Your task to perform on an android device: Open battery settings Image 0: 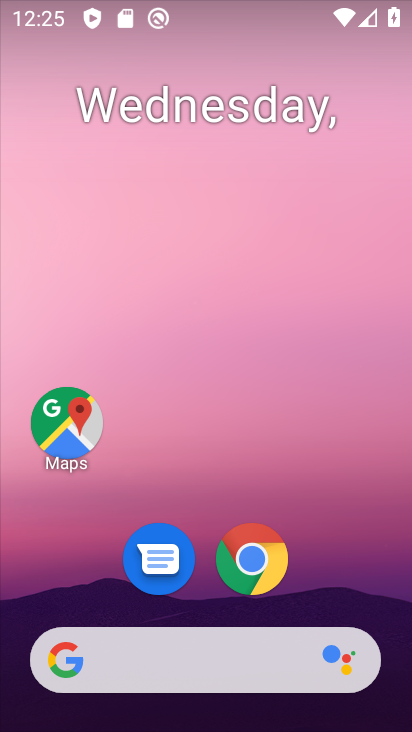
Step 0: drag from (216, 607) to (313, 37)
Your task to perform on an android device: Open battery settings Image 1: 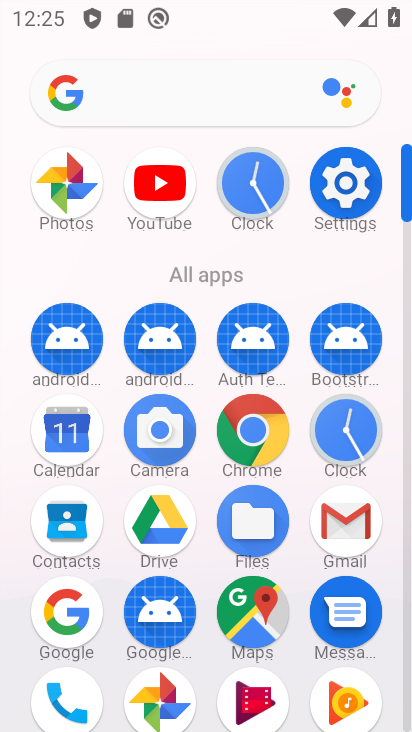
Step 1: click (354, 204)
Your task to perform on an android device: Open battery settings Image 2: 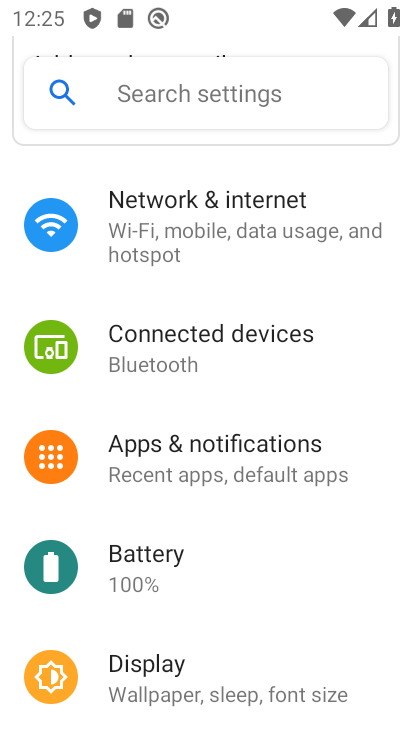
Step 2: click (184, 560)
Your task to perform on an android device: Open battery settings Image 3: 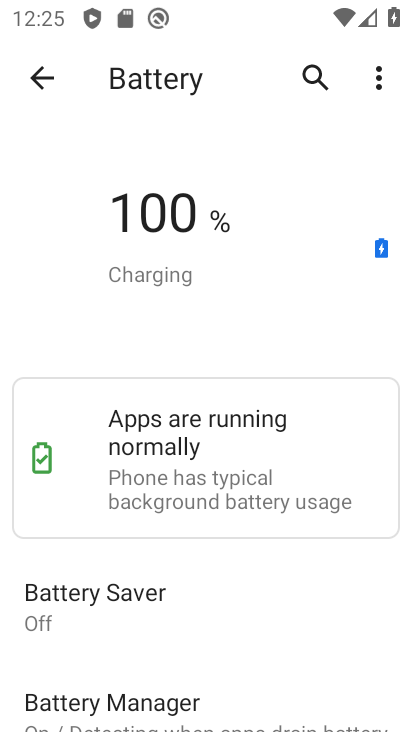
Step 3: task complete